Your task to perform on an android device: Open Google Image 0: 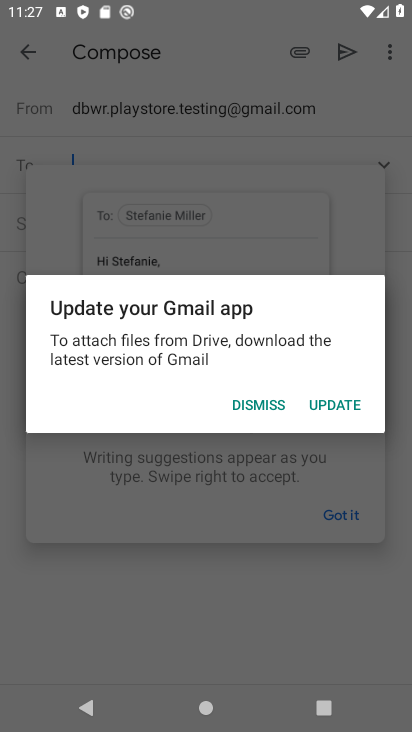
Step 0: press home button
Your task to perform on an android device: Open Google Image 1: 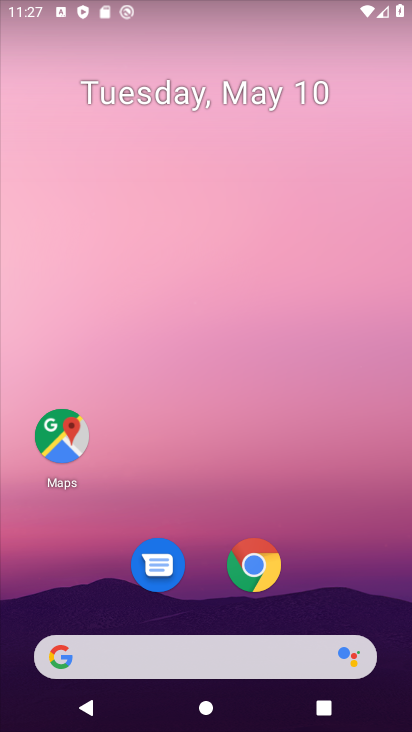
Step 1: click (53, 659)
Your task to perform on an android device: Open Google Image 2: 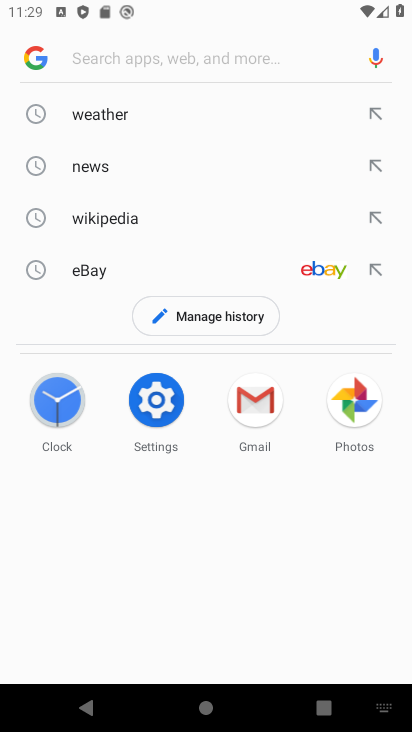
Step 2: task complete